Your task to perform on an android device: change notifications settings Image 0: 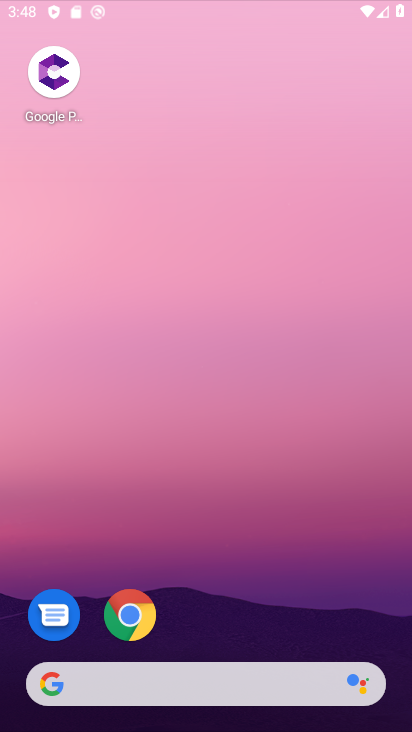
Step 0: drag from (320, 627) to (228, 124)
Your task to perform on an android device: change notifications settings Image 1: 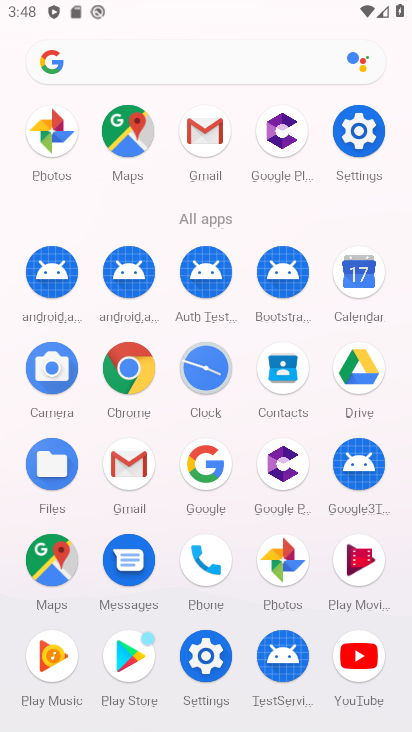
Step 1: click (348, 137)
Your task to perform on an android device: change notifications settings Image 2: 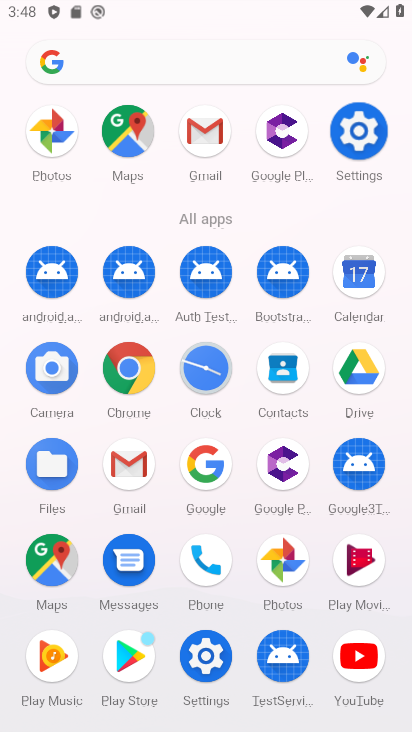
Step 2: click (349, 138)
Your task to perform on an android device: change notifications settings Image 3: 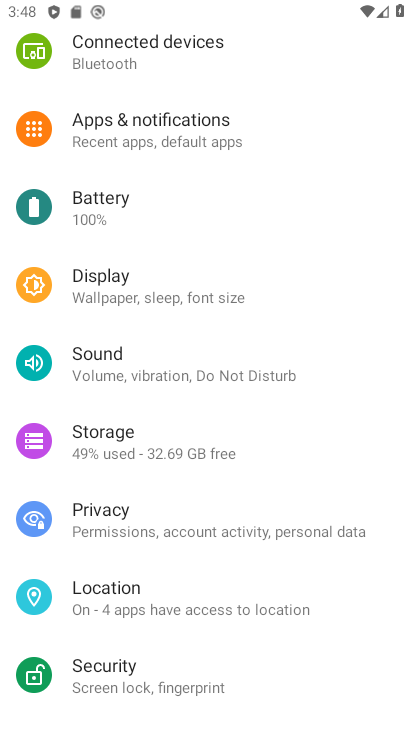
Step 3: click (128, 139)
Your task to perform on an android device: change notifications settings Image 4: 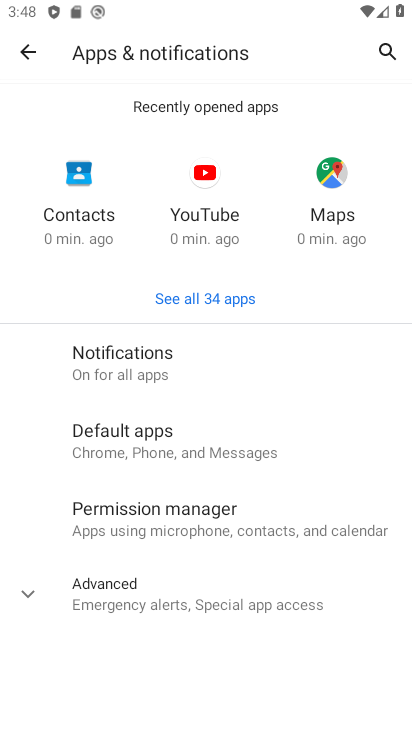
Step 4: click (119, 370)
Your task to perform on an android device: change notifications settings Image 5: 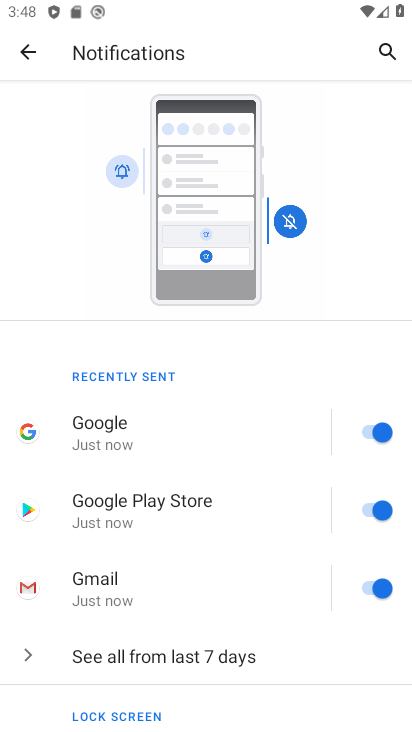
Step 5: drag from (153, 558) to (84, 130)
Your task to perform on an android device: change notifications settings Image 6: 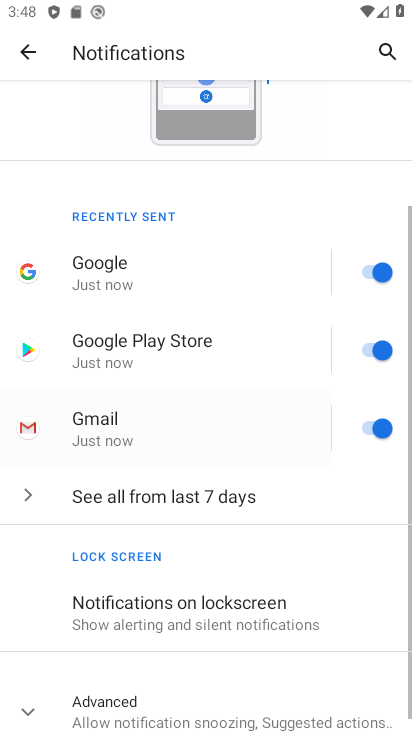
Step 6: drag from (221, 498) to (200, 169)
Your task to perform on an android device: change notifications settings Image 7: 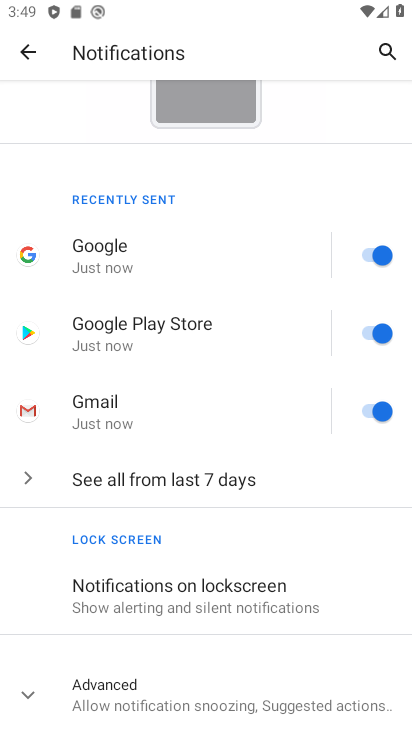
Step 7: click (125, 686)
Your task to perform on an android device: change notifications settings Image 8: 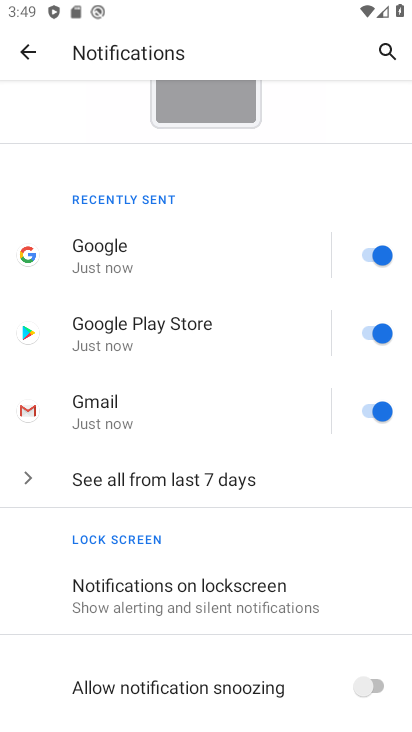
Step 8: click (140, 678)
Your task to perform on an android device: change notifications settings Image 9: 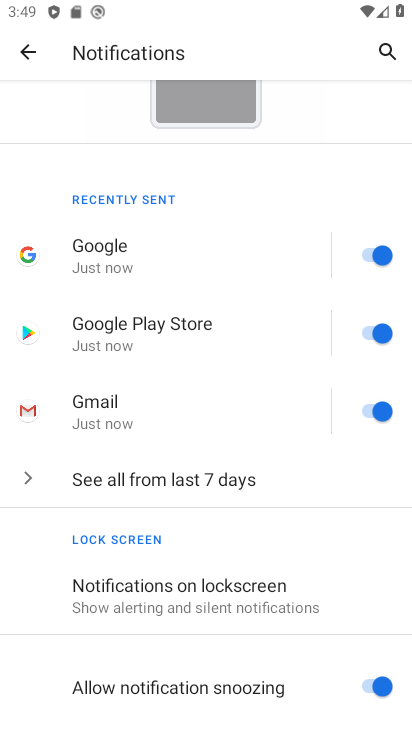
Step 9: drag from (200, 638) to (174, 15)
Your task to perform on an android device: change notifications settings Image 10: 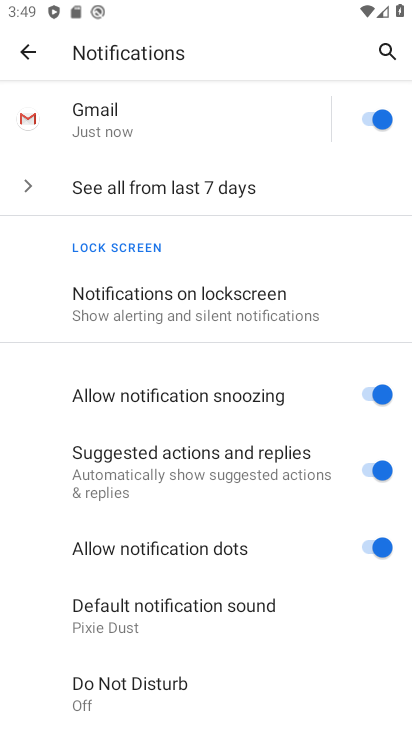
Step 10: click (374, 393)
Your task to perform on an android device: change notifications settings Image 11: 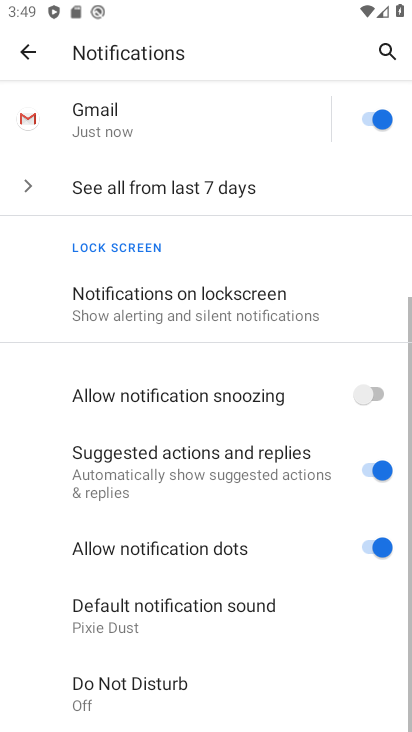
Step 11: click (382, 551)
Your task to perform on an android device: change notifications settings Image 12: 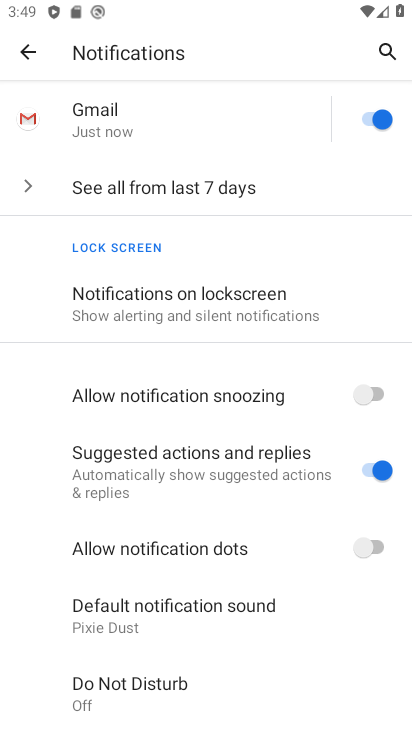
Step 12: task complete